Your task to perform on an android device: What's the weather going to be this weekend? Image 0: 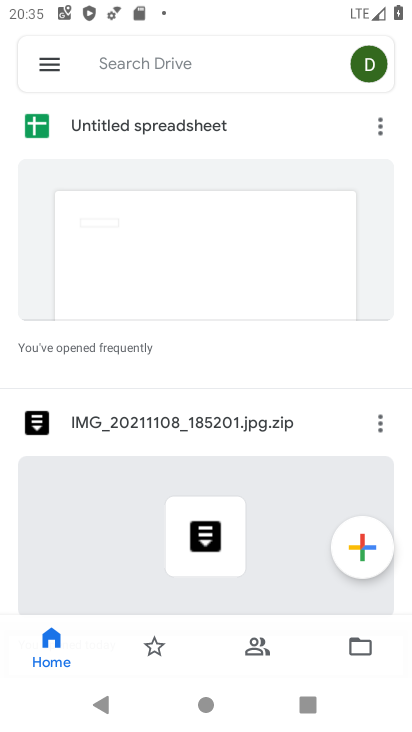
Step 0: press back button
Your task to perform on an android device: What's the weather going to be this weekend? Image 1: 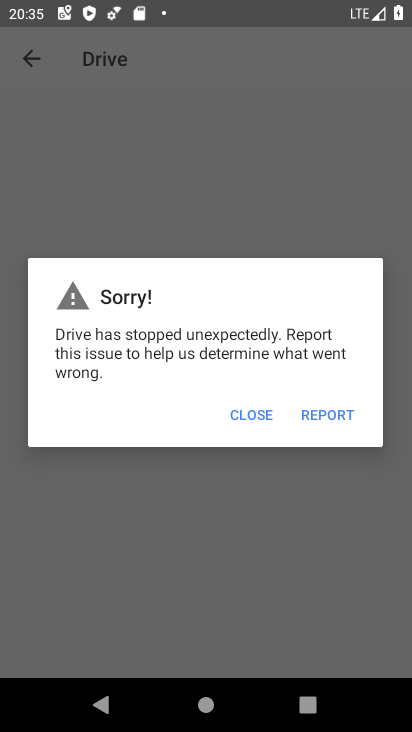
Step 1: click (231, 413)
Your task to perform on an android device: What's the weather going to be this weekend? Image 2: 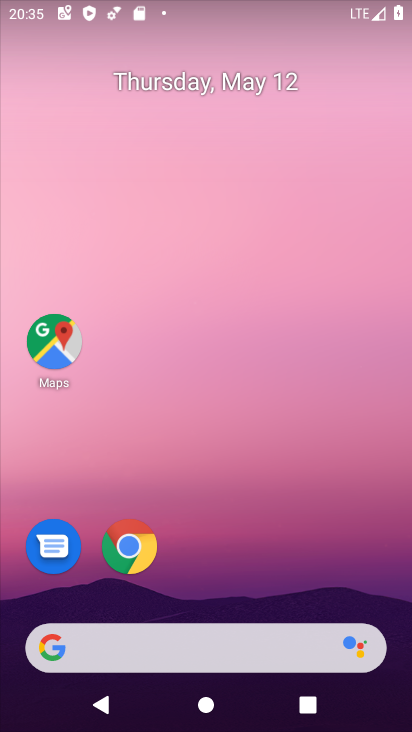
Step 2: drag from (225, 596) to (297, 112)
Your task to perform on an android device: What's the weather going to be this weekend? Image 3: 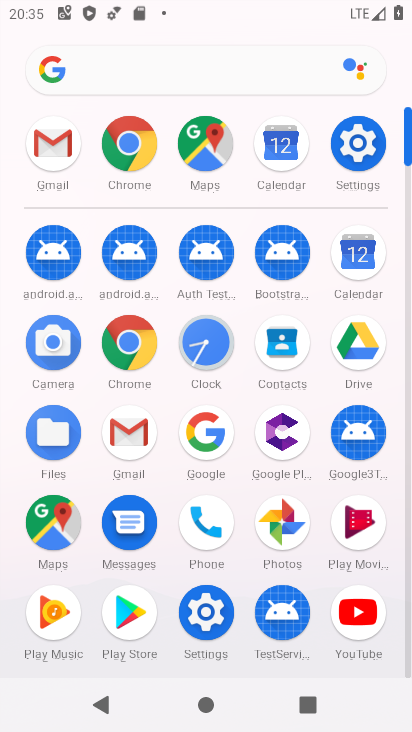
Step 3: click (155, 68)
Your task to perform on an android device: What's the weather going to be this weekend? Image 4: 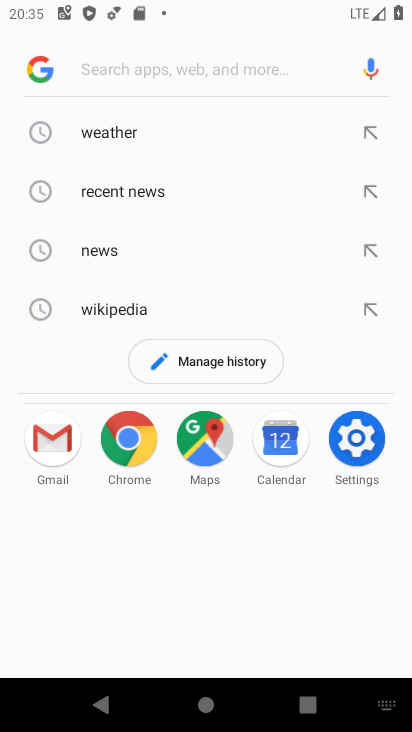
Step 4: click (131, 128)
Your task to perform on an android device: What's the weather going to be this weekend? Image 5: 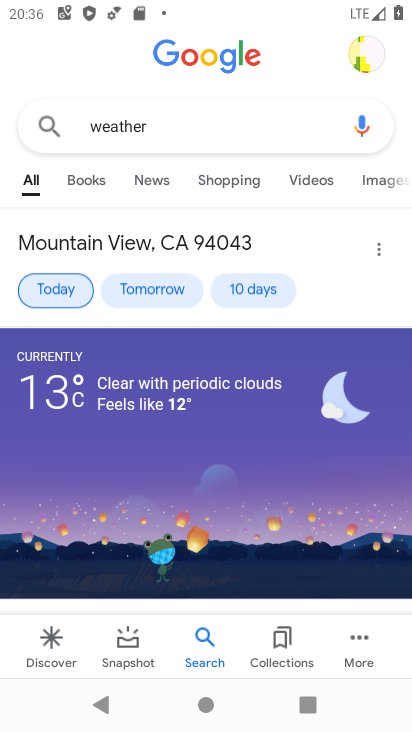
Step 5: drag from (160, 571) to (257, 150)
Your task to perform on an android device: What's the weather going to be this weekend? Image 6: 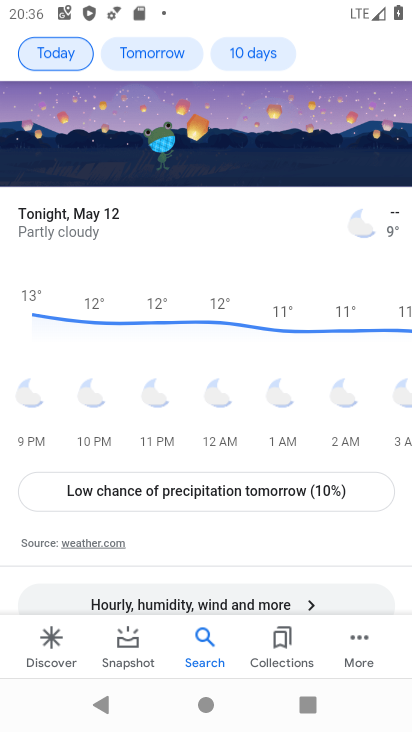
Step 6: drag from (257, 164) to (234, 625)
Your task to perform on an android device: What's the weather going to be this weekend? Image 7: 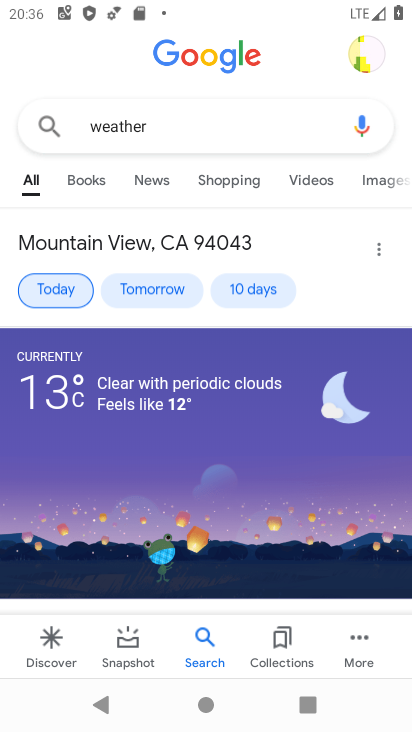
Step 7: drag from (213, 511) to (305, 6)
Your task to perform on an android device: What's the weather going to be this weekend? Image 8: 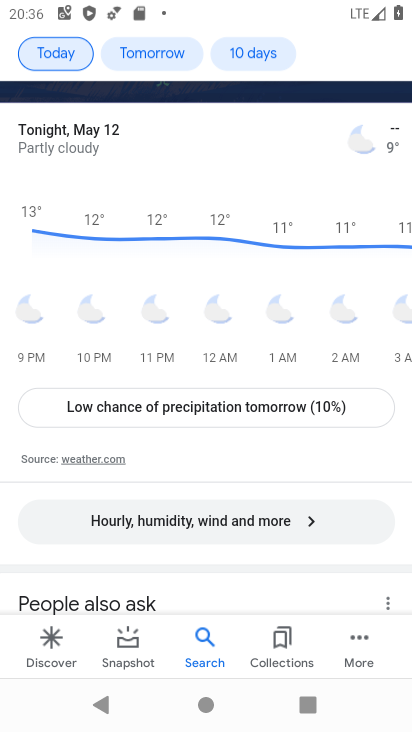
Step 8: click (234, 47)
Your task to perform on an android device: What's the weather going to be this weekend? Image 9: 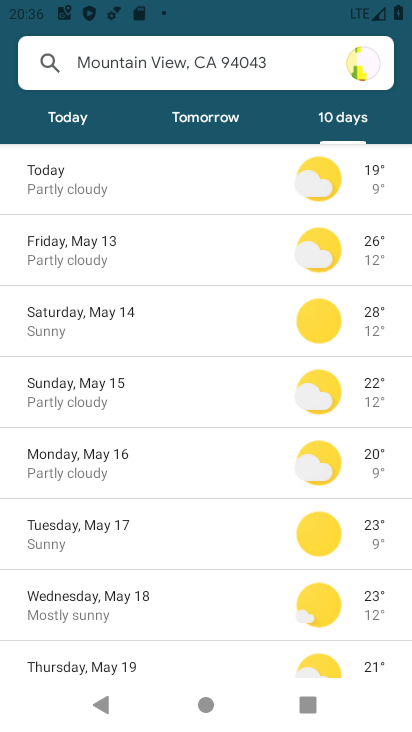
Step 9: task complete